Your task to perform on an android device: empty trash in the gmail app Image 0: 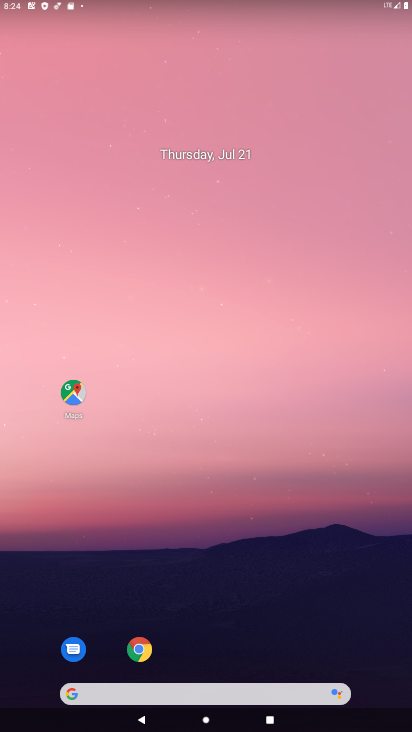
Step 0: drag from (231, 627) to (218, 0)
Your task to perform on an android device: empty trash in the gmail app Image 1: 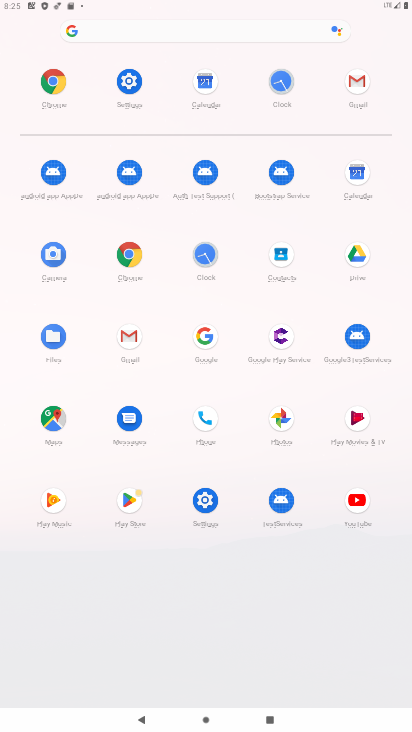
Step 1: click (200, 506)
Your task to perform on an android device: empty trash in the gmail app Image 2: 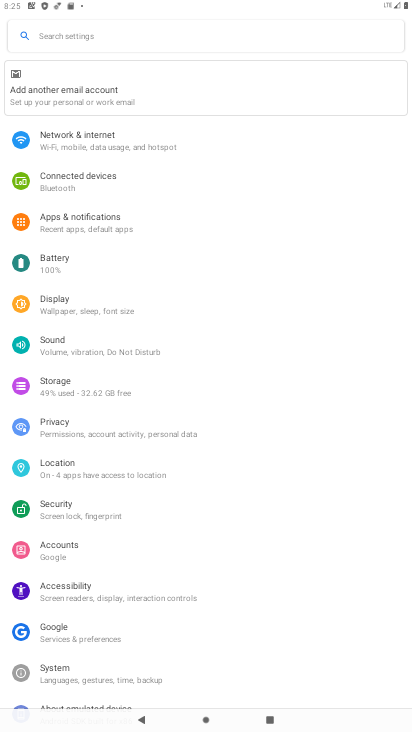
Step 2: press home button
Your task to perform on an android device: empty trash in the gmail app Image 3: 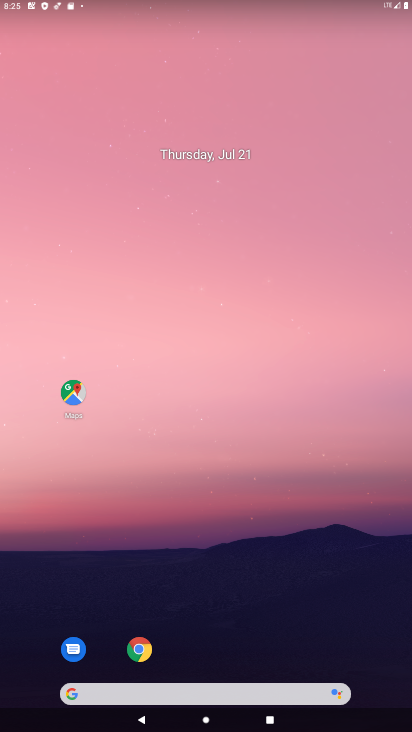
Step 3: drag from (277, 640) to (227, 3)
Your task to perform on an android device: empty trash in the gmail app Image 4: 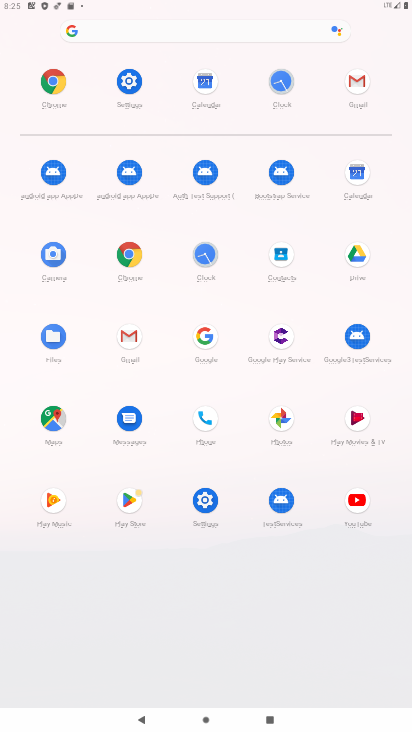
Step 4: click (141, 347)
Your task to perform on an android device: empty trash in the gmail app Image 5: 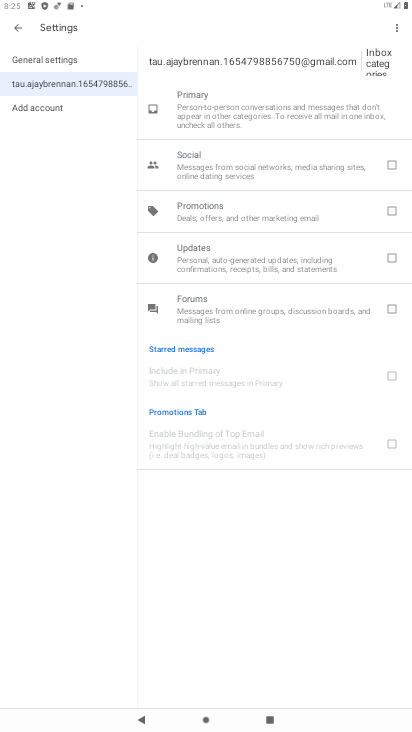
Step 5: click (14, 28)
Your task to perform on an android device: empty trash in the gmail app Image 6: 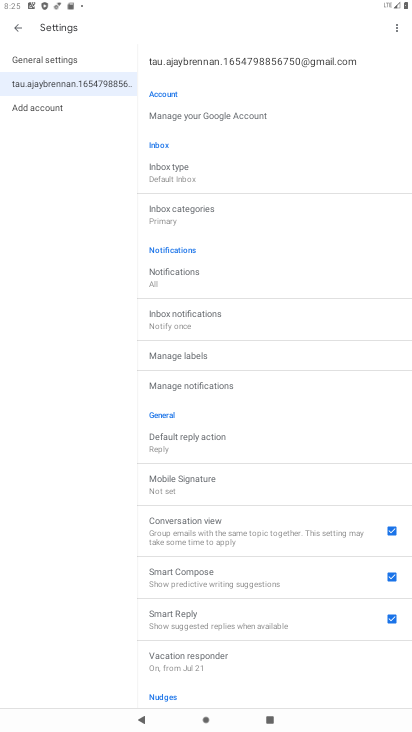
Step 6: click (19, 20)
Your task to perform on an android device: empty trash in the gmail app Image 7: 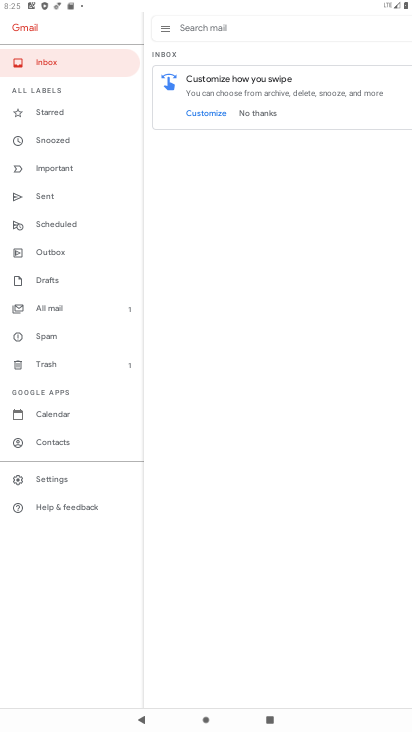
Step 7: click (52, 369)
Your task to perform on an android device: empty trash in the gmail app Image 8: 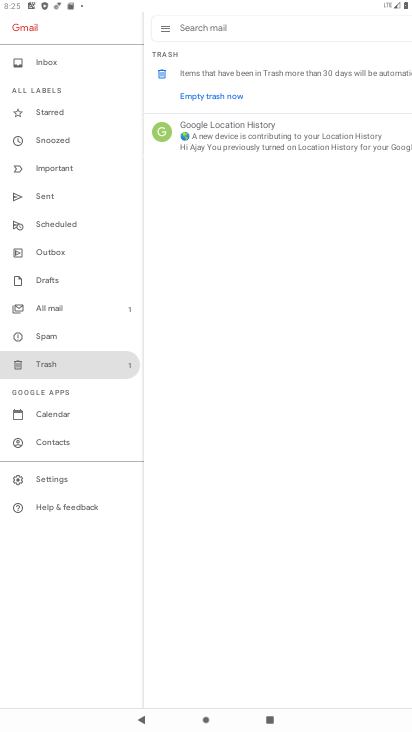
Step 8: click (217, 96)
Your task to perform on an android device: empty trash in the gmail app Image 9: 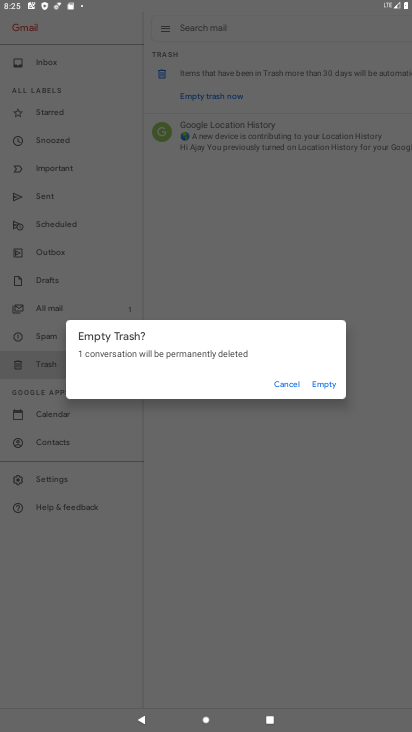
Step 9: click (329, 386)
Your task to perform on an android device: empty trash in the gmail app Image 10: 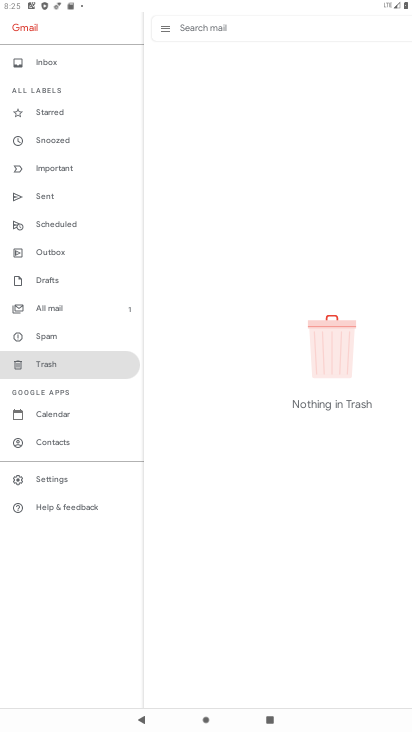
Step 10: task complete